Your task to perform on an android device: delete the emails in spam in the gmail app Image 0: 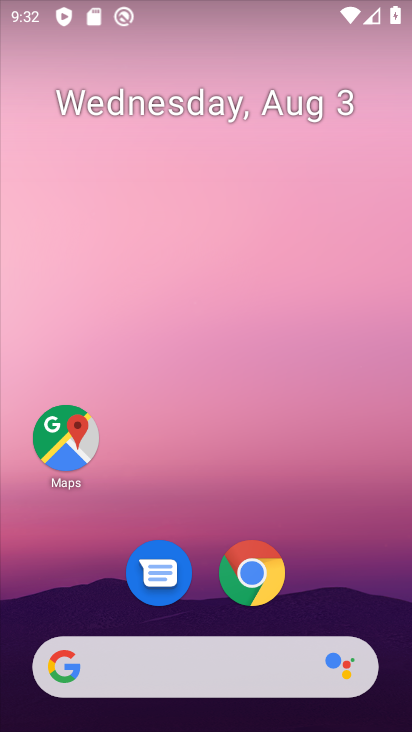
Step 0: drag from (220, 635) to (244, 189)
Your task to perform on an android device: delete the emails in spam in the gmail app Image 1: 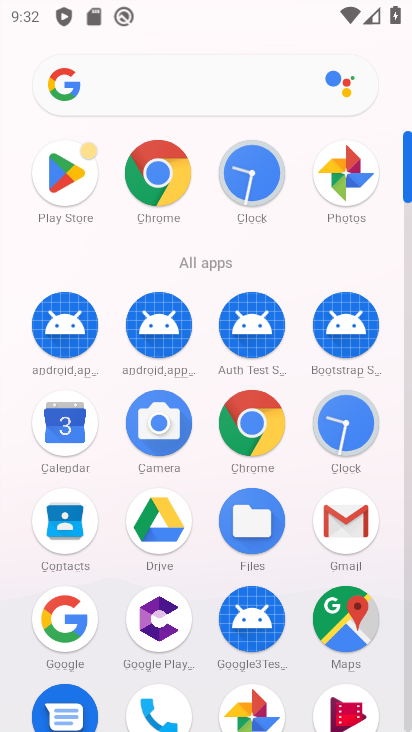
Step 1: click (348, 517)
Your task to perform on an android device: delete the emails in spam in the gmail app Image 2: 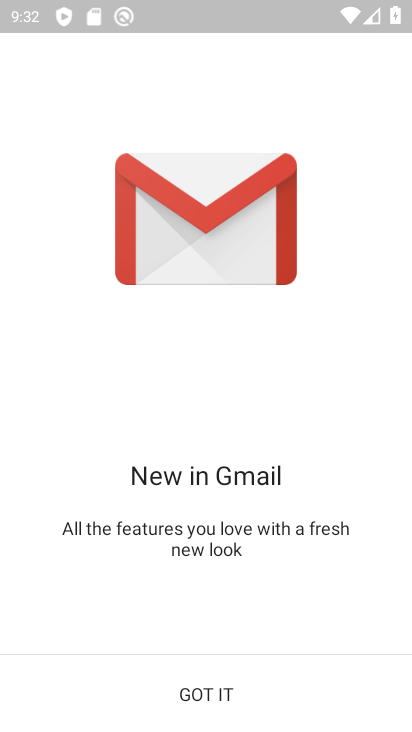
Step 2: click (212, 697)
Your task to perform on an android device: delete the emails in spam in the gmail app Image 3: 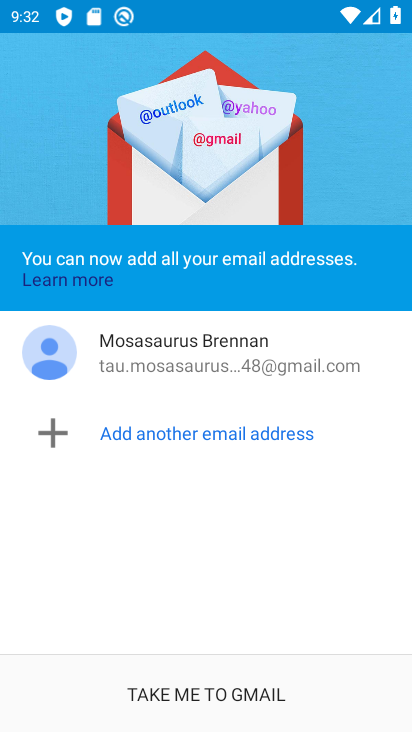
Step 3: click (226, 689)
Your task to perform on an android device: delete the emails in spam in the gmail app Image 4: 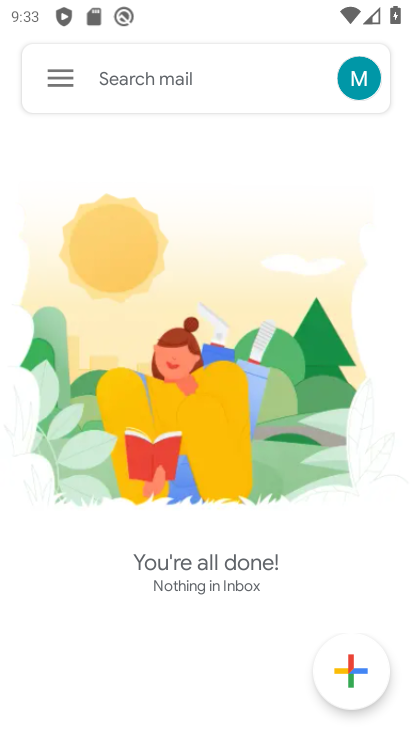
Step 4: click (55, 87)
Your task to perform on an android device: delete the emails in spam in the gmail app Image 5: 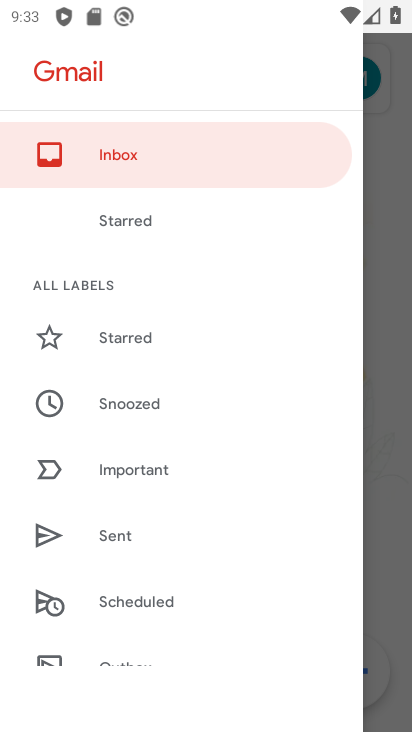
Step 5: drag from (158, 588) to (178, 129)
Your task to perform on an android device: delete the emails in spam in the gmail app Image 6: 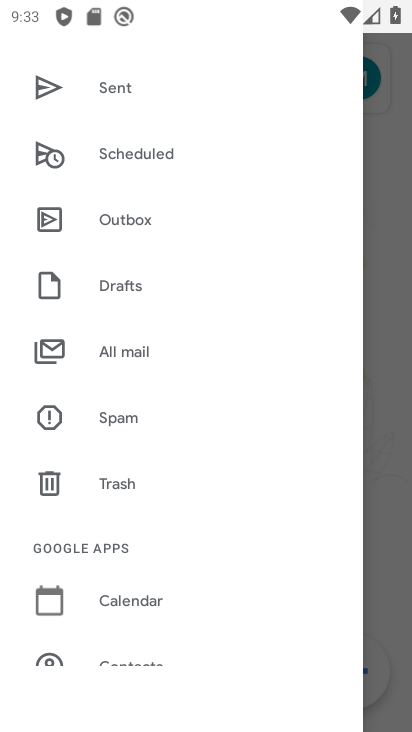
Step 6: click (115, 426)
Your task to perform on an android device: delete the emails in spam in the gmail app Image 7: 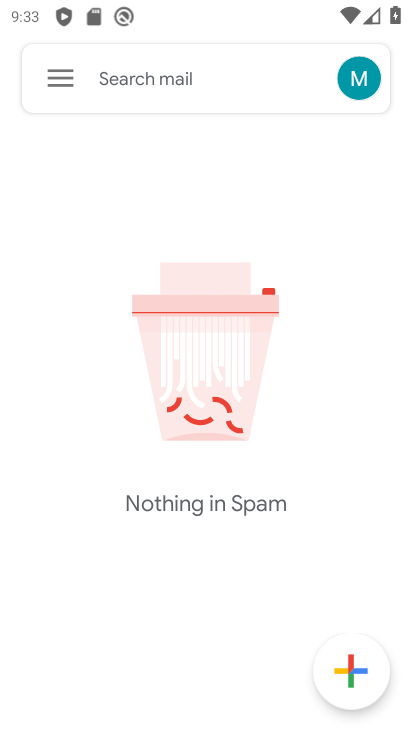
Step 7: task complete